Your task to perform on an android device: Go to internet settings Image 0: 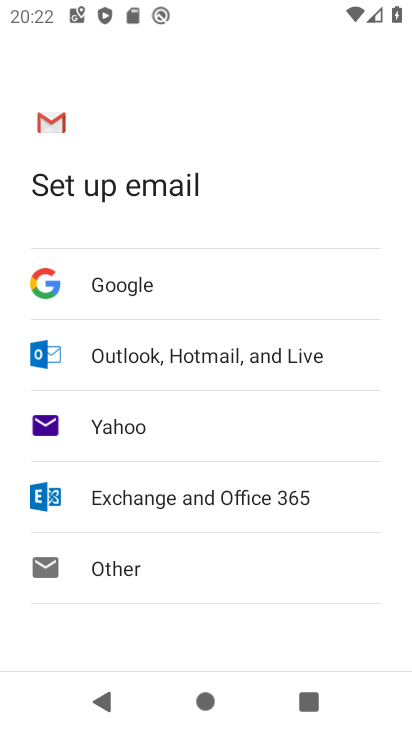
Step 0: press home button
Your task to perform on an android device: Go to internet settings Image 1: 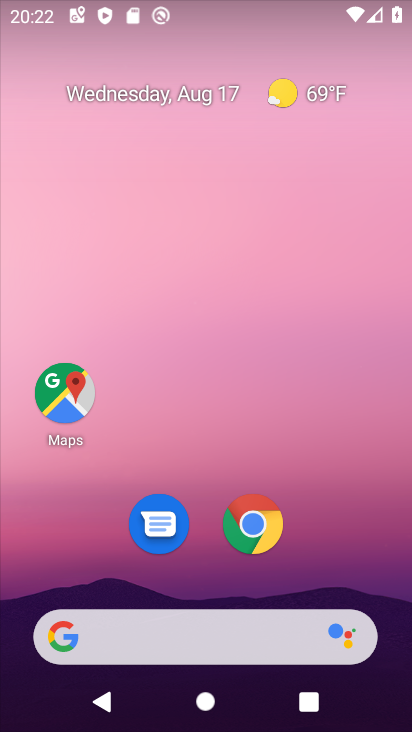
Step 1: drag from (324, 519) to (282, 1)
Your task to perform on an android device: Go to internet settings Image 2: 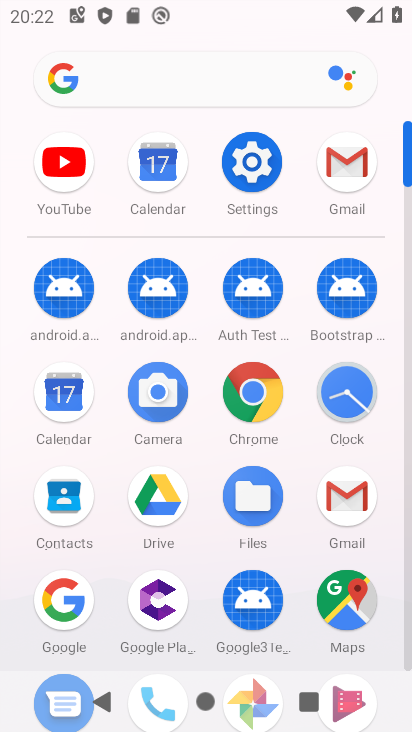
Step 2: click (252, 168)
Your task to perform on an android device: Go to internet settings Image 3: 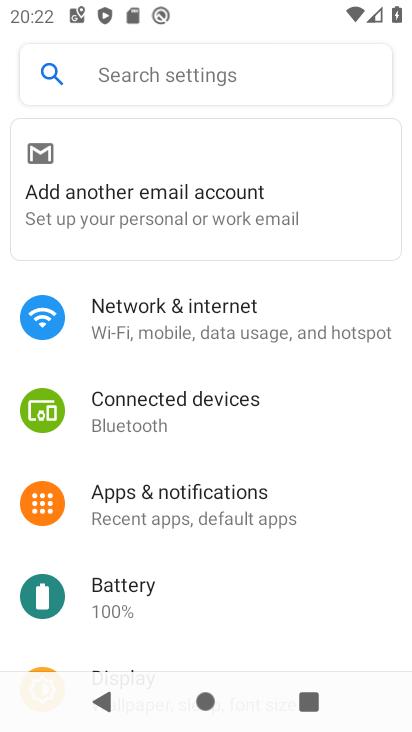
Step 3: click (248, 323)
Your task to perform on an android device: Go to internet settings Image 4: 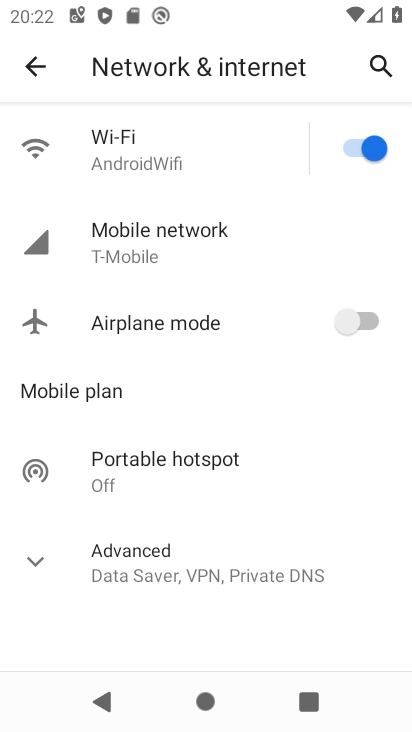
Step 4: task complete